Your task to perform on an android device: Open the stopwatch Image 0: 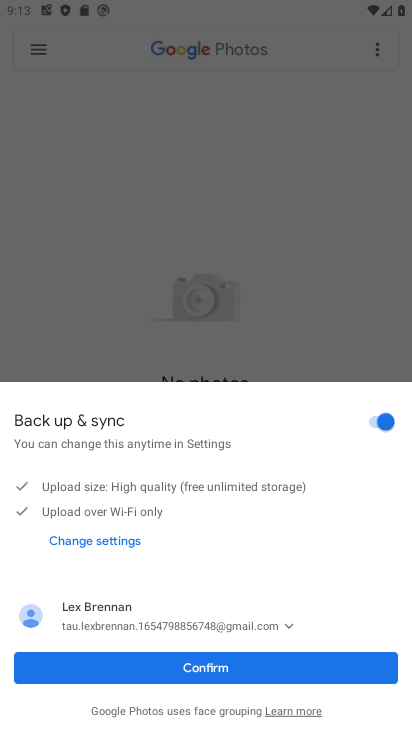
Step 0: press home button
Your task to perform on an android device: Open the stopwatch Image 1: 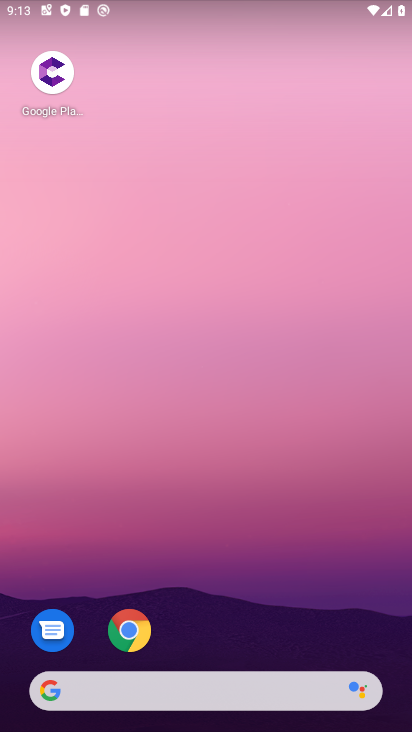
Step 1: drag from (276, 553) to (210, 3)
Your task to perform on an android device: Open the stopwatch Image 2: 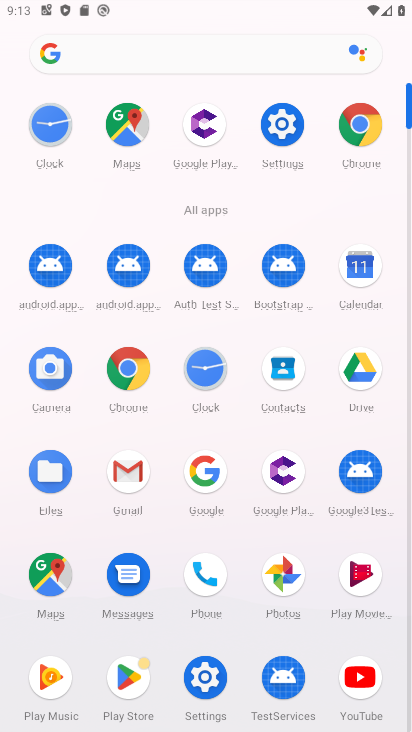
Step 2: click (221, 353)
Your task to perform on an android device: Open the stopwatch Image 3: 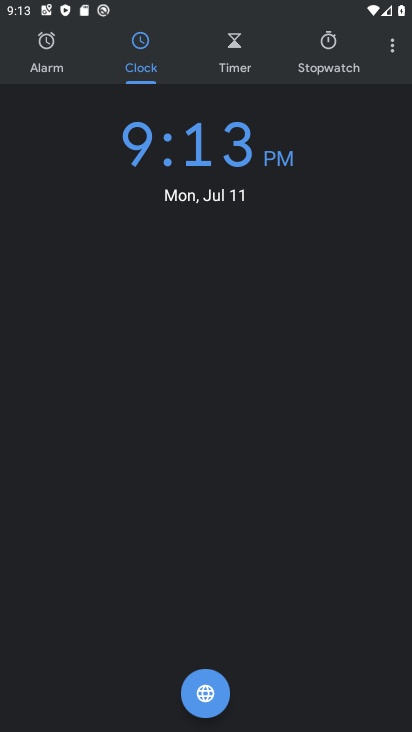
Step 3: click (314, 58)
Your task to perform on an android device: Open the stopwatch Image 4: 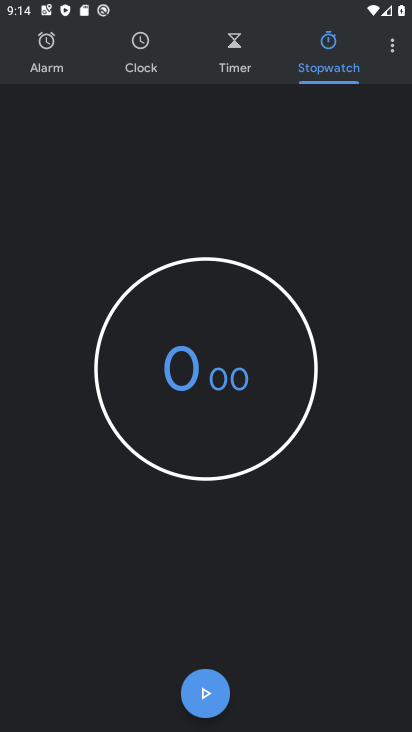
Step 4: task complete